Your task to perform on an android device: Go to wifi settings Image 0: 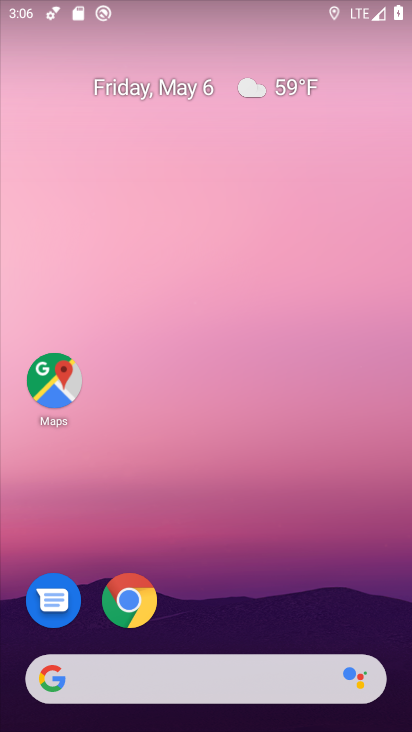
Step 0: drag from (216, 616) to (230, 4)
Your task to perform on an android device: Go to wifi settings Image 1: 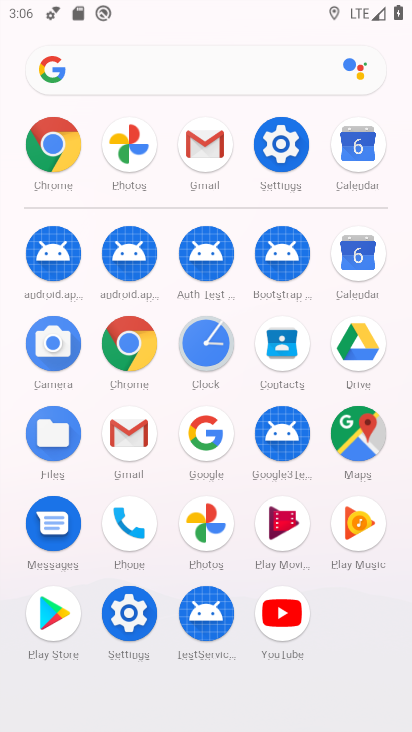
Step 1: click (285, 145)
Your task to perform on an android device: Go to wifi settings Image 2: 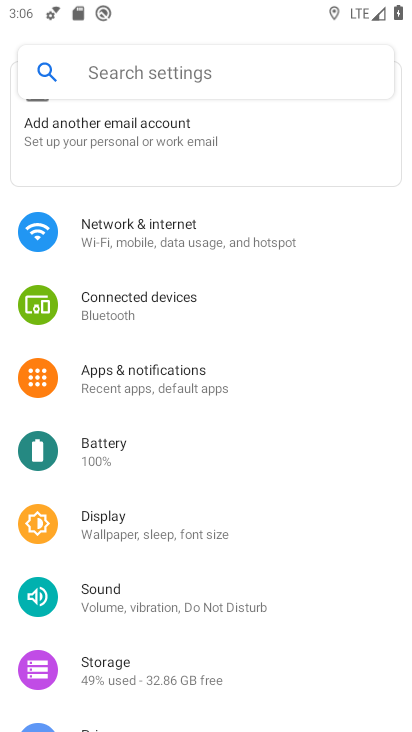
Step 2: click (171, 236)
Your task to perform on an android device: Go to wifi settings Image 3: 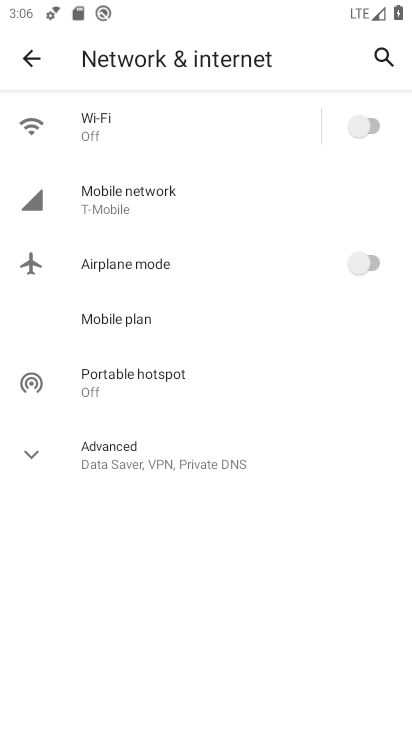
Step 3: click (161, 128)
Your task to perform on an android device: Go to wifi settings Image 4: 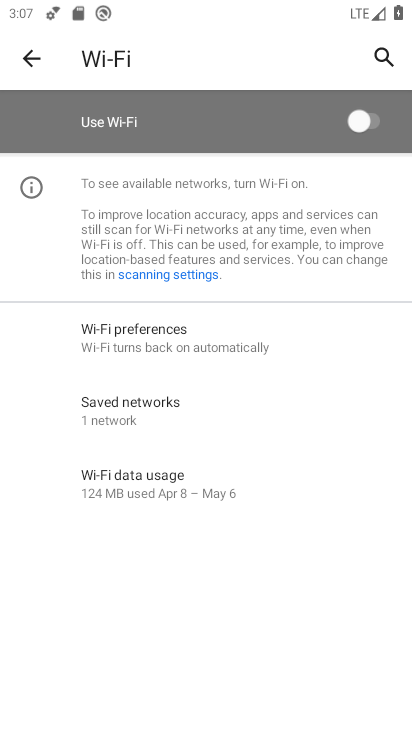
Step 4: click (366, 118)
Your task to perform on an android device: Go to wifi settings Image 5: 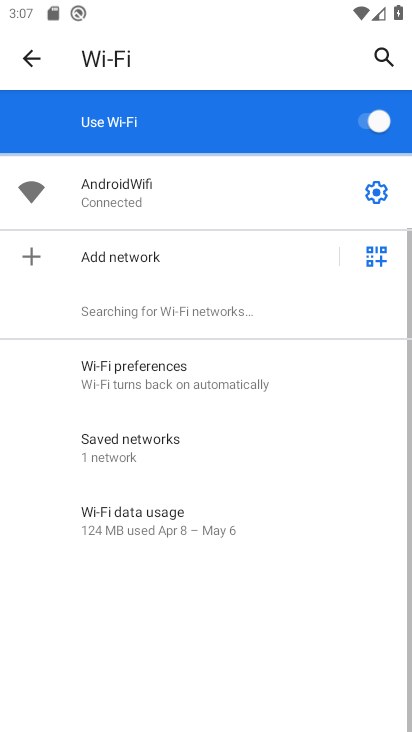
Step 5: click (166, 191)
Your task to perform on an android device: Go to wifi settings Image 6: 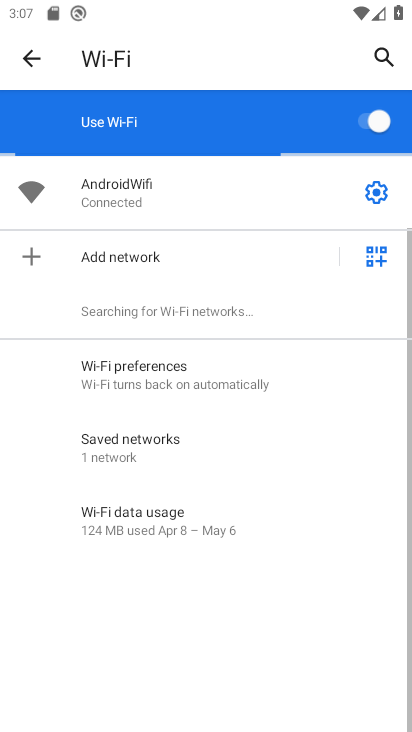
Step 6: click (145, 198)
Your task to perform on an android device: Go to wifi settings Image 7: 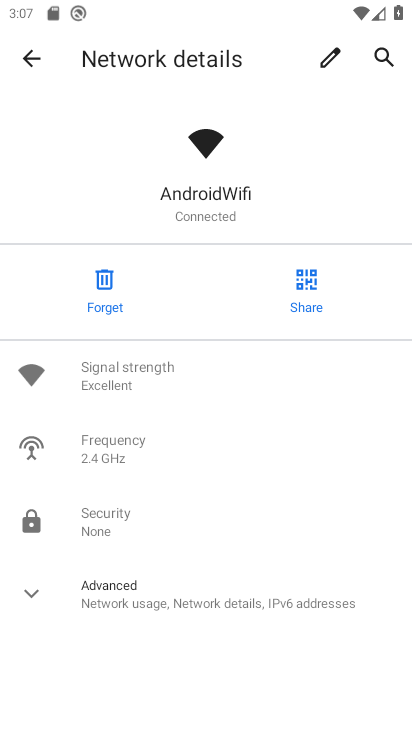
Step 7: task complete